Your task to perform on an android device: allow cookies in the chrome app Image 0: 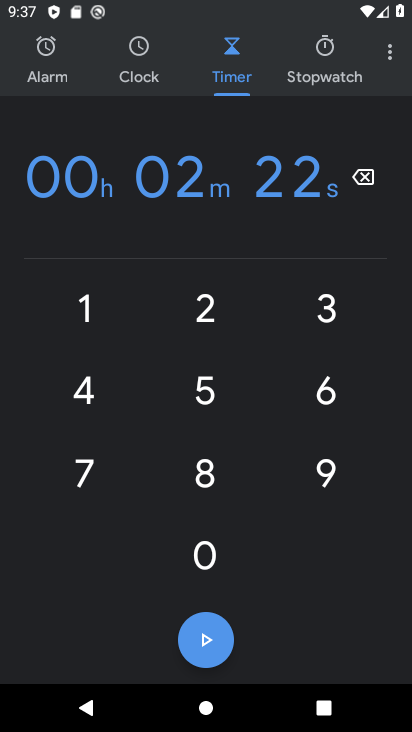
Step 0: press home button
Your task to perform on an android device: allow cookies in the chrome app Image 1: 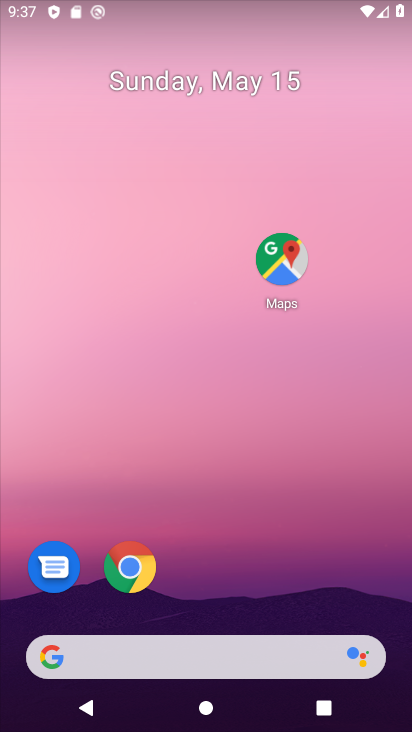
Step 1: click (133, 569)
Your task to perform on an android device: allow cookies in the chrome app Image 2: 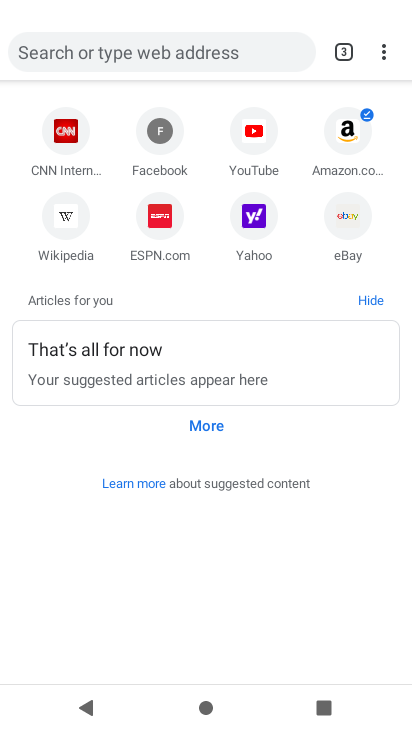
Step 2: click (375, 56)
Your task to perform on an android device: allow cookies in the chrome app Image 3: 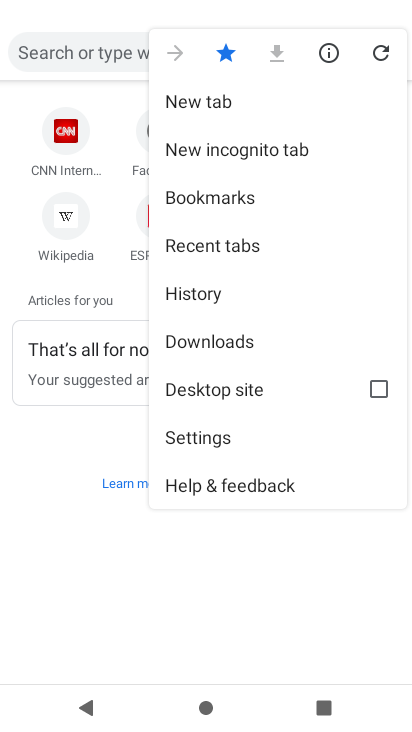
Step 3: click (208, 434)
Your task to perform on an android device: allow cookies in the chrome app Image 4: 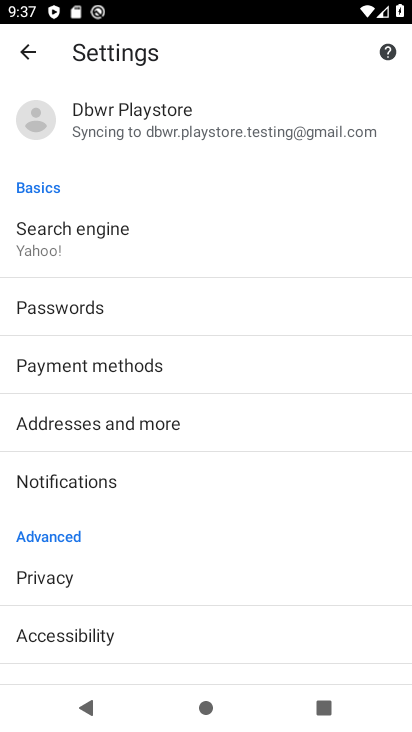
Step 4: drag from (155, 600) to (202, 164)
Your task to perform on an android device: allow cookies in the chrome app Image 5: 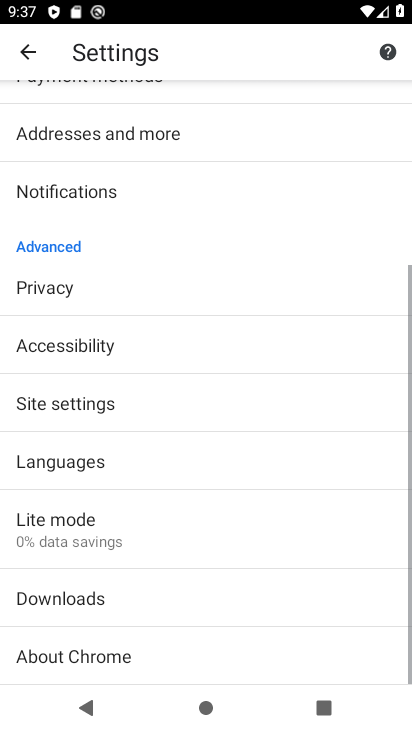
Step 5: click (72, 398)
Your task to perform on an android device: allow cookies in the chrome app Image 6: 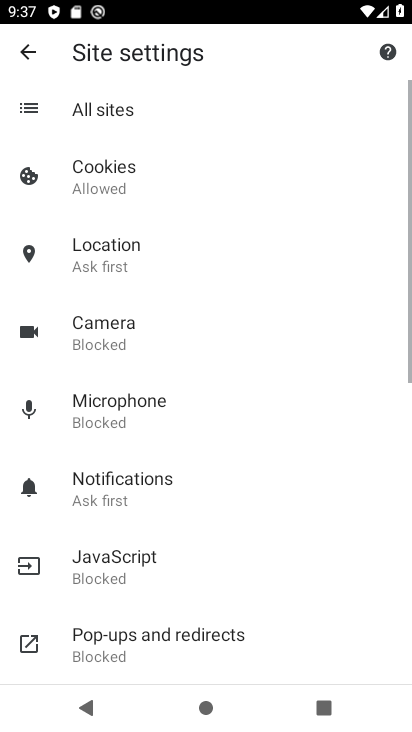
Step 6: click (144, 193)
Your task to perform on an android device: allow cookies in the chrome app Image 7: 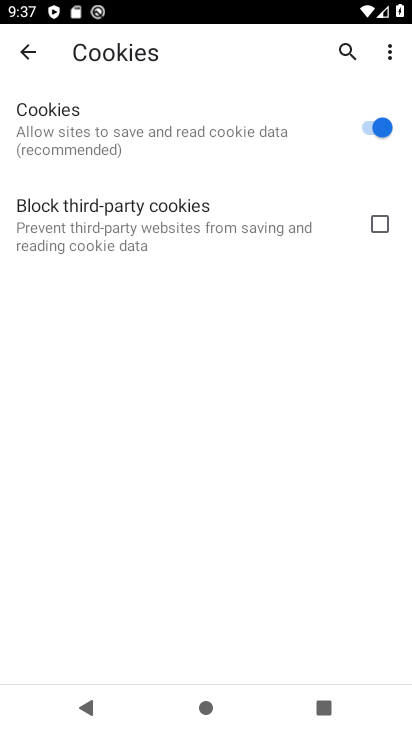
Step 7: task complete